Your task to perform on an android device: delete a single message in the gmail app Image 0: 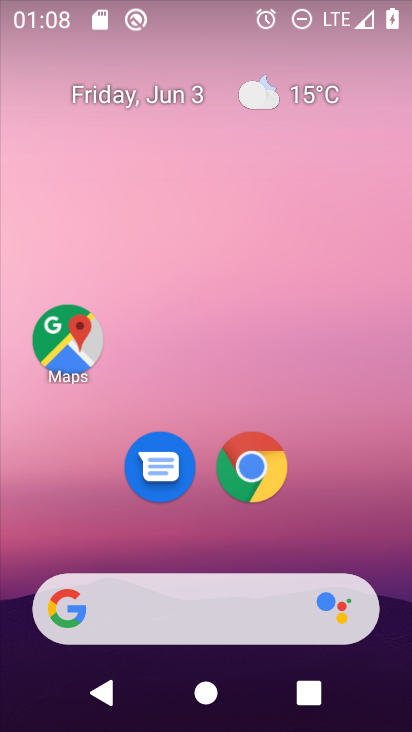
Step 0: drag from (399, 630) to (340, 81)
Your task to perform on an android device: delete a single message in the gmail app Image 1: 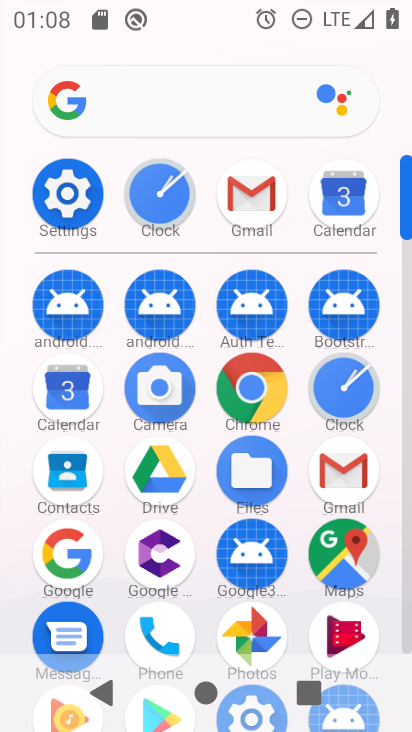
Step 1: click (408, 631)
Your task to perform on an android device: delete a single message in the gmail app Image 2: 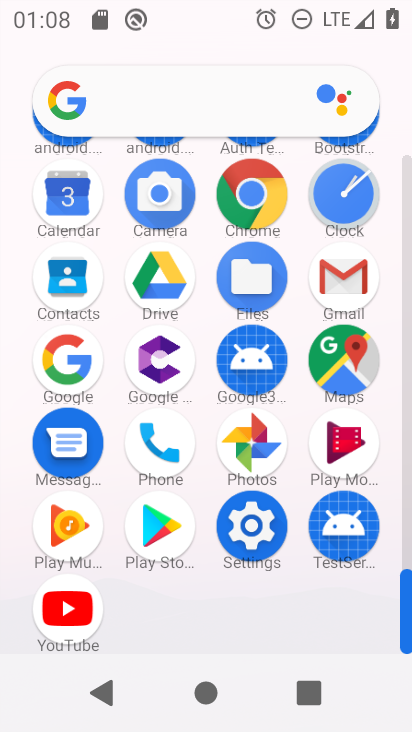
Step 2: click (342, 279)
Your task to perform on an android device: delete a single message in the gmail app Image 3: 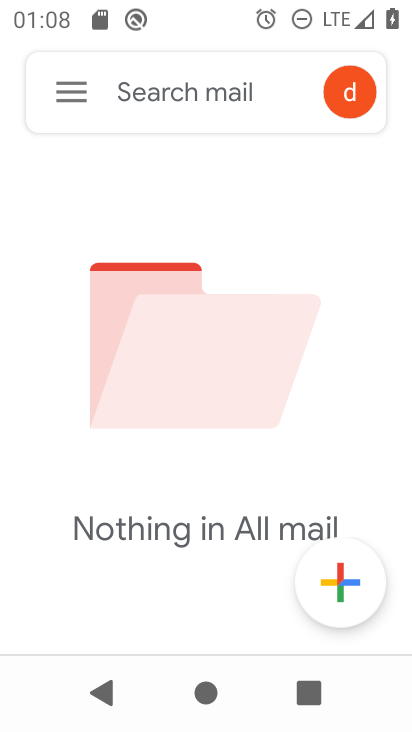
Step 3: click (68, 90)
Your task to perform on an android device: delete a single message in the gmail app Image 4: 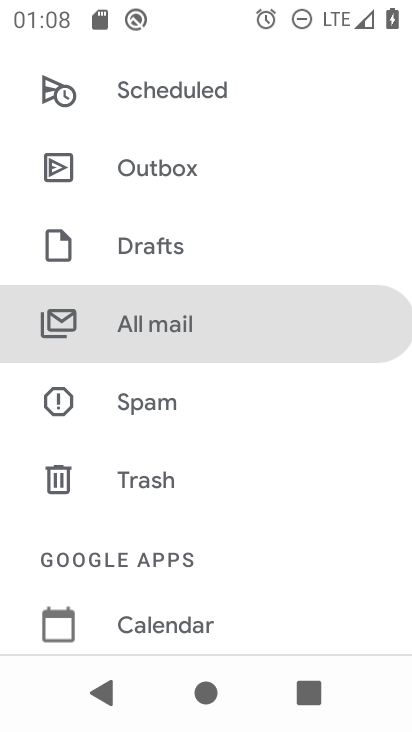
Step 4: click (171, 321)
Your task to perform on an android device: delete a single message in the gmail app Image 5: 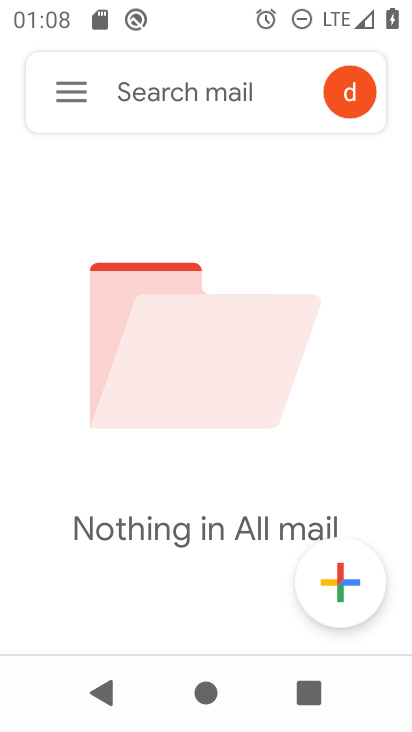
Step 5: task complete